Your task to perform on an android device: turn on wifi Image 0: 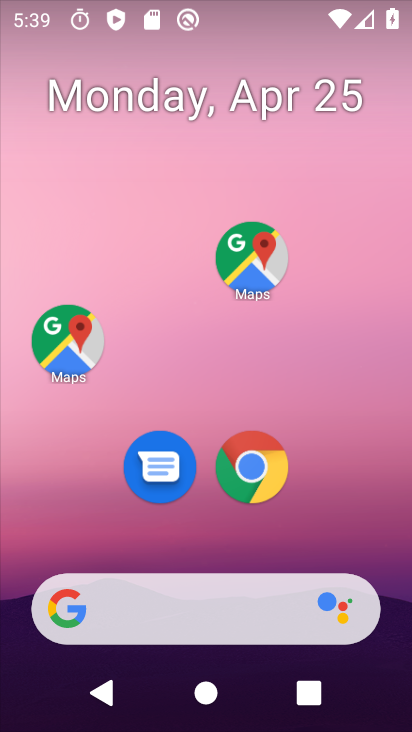
Step 0: drag from (244, 336) to (263, 0)
Your task to perform on an android device: turn on wifi Image 1: 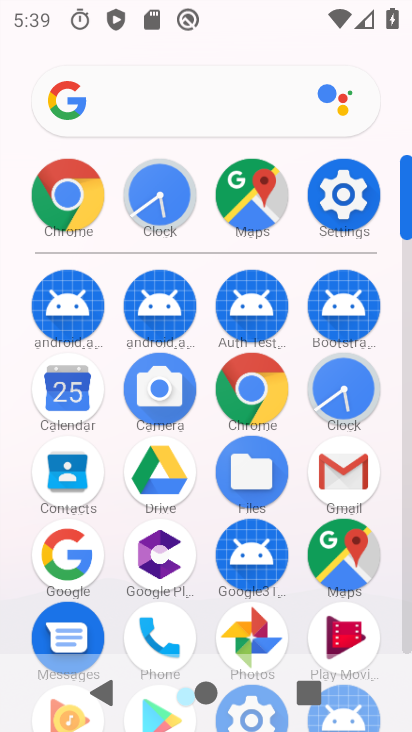
Step 1: click (262, 380)
Your task to perform on an android device: turn on wifi Image 2: 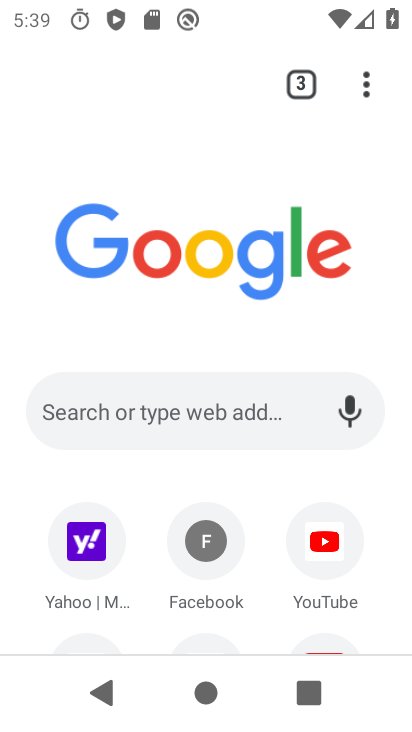
Step 2: press home button
Your task to perform on an android device: turn on wifi Image 3: 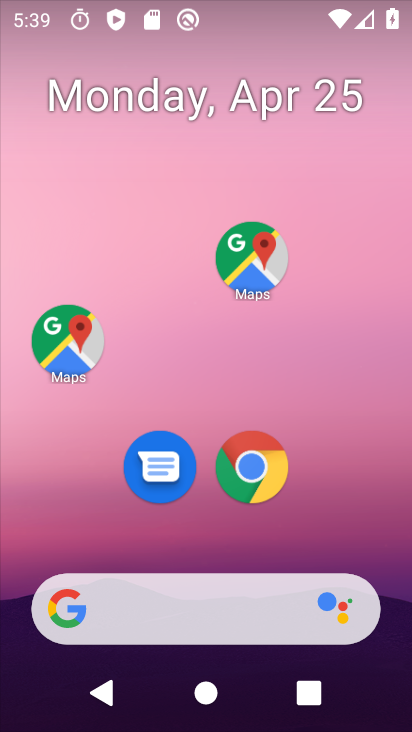
Step 3: drag from (268, 595) to (299, 25)
Your task to perform on an android device: turn on wifi Image 4: 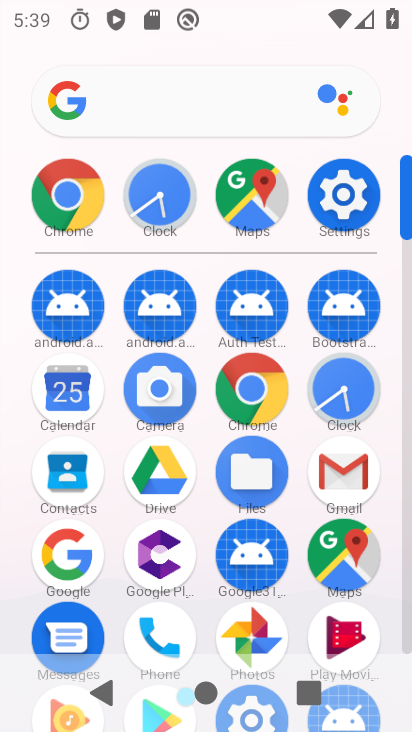
Step 4: drag from (289, 618) to (278, 194)
Your task to perform on an android device: turn on wifi Image 5: 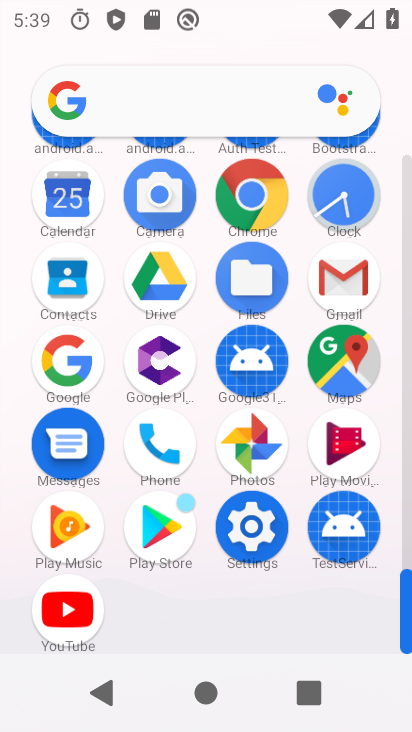
Step 5: click (252, 514)
Your task to perform on an android device: turn on wifi Image 6: 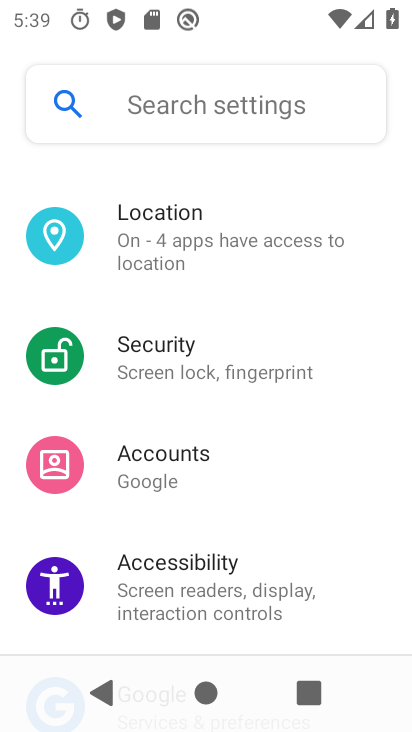
Step 6: drag from (249, 168) to (323, 723)
Your task to perform on an android device: turn on wifi Image 7: 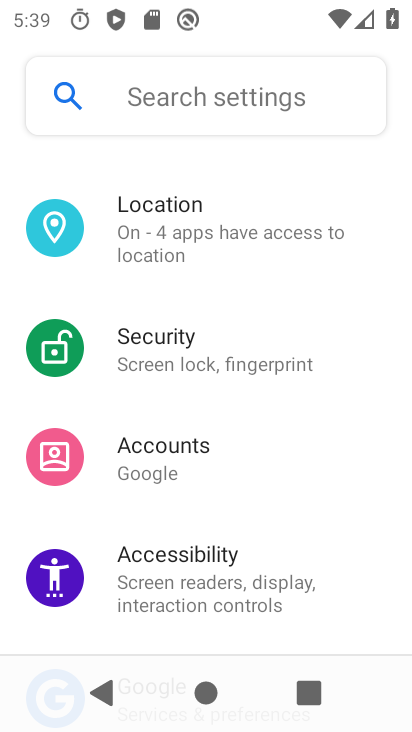
Step 7: drag from (291, 179) to (352, 687)
Your task to perform on an android device: turn on wifi Image 8: 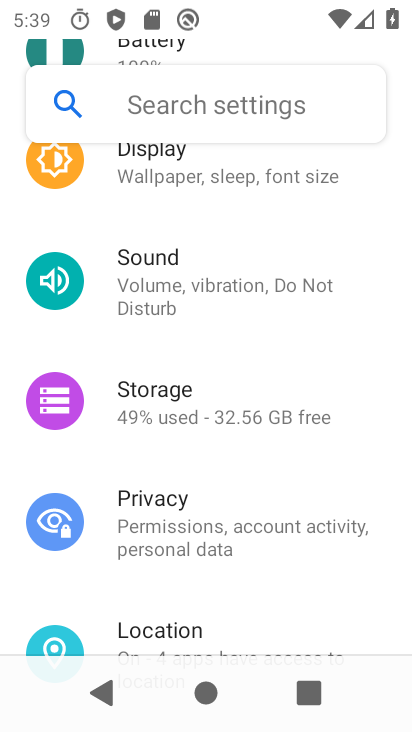
Step 8: drag from (209, 182) to (218, 622)
Your task to perform on an android device: turn on wifi Image 9: 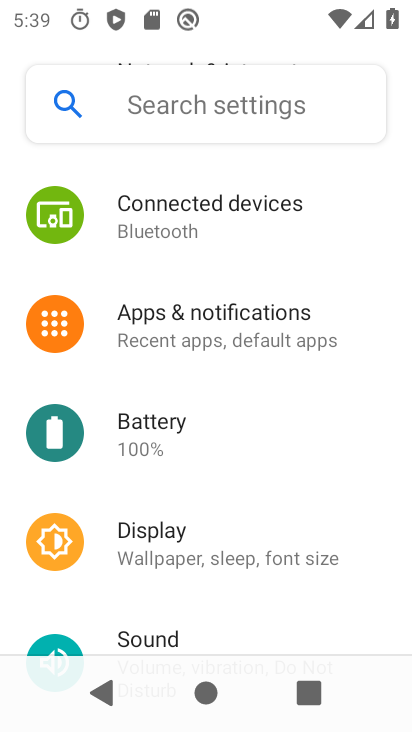
Step 9: drag from (221, 165) to (287, 674)
Your task to perform on an android device: turn on wifi Image 10: 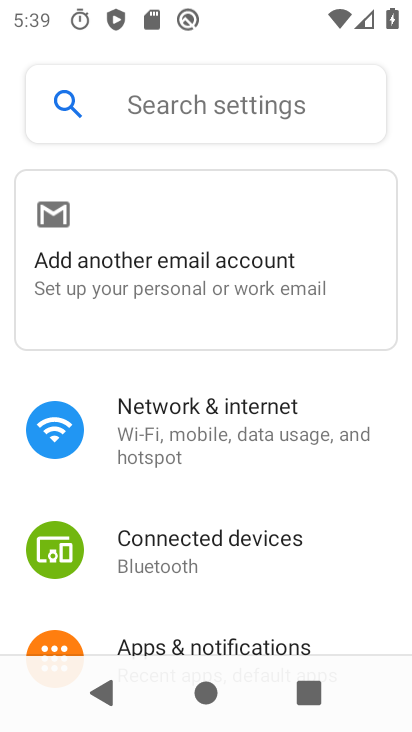
Step 10: click (233, 435)
Your task to perform on an android device: turn on wifi Image 11: 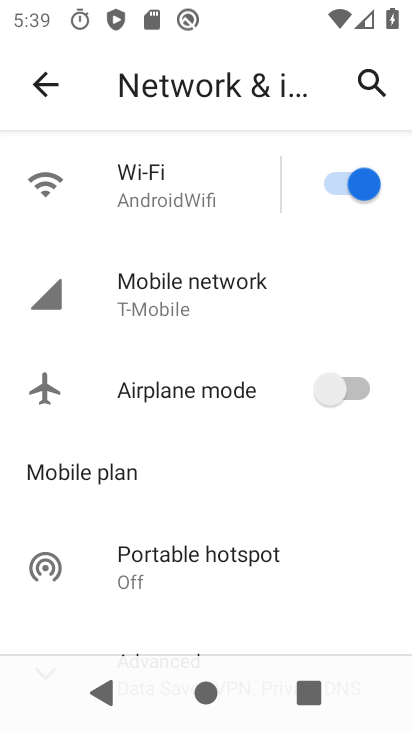
Step 11: task complete